Your task to perform on an android device: check google app version Image 0: 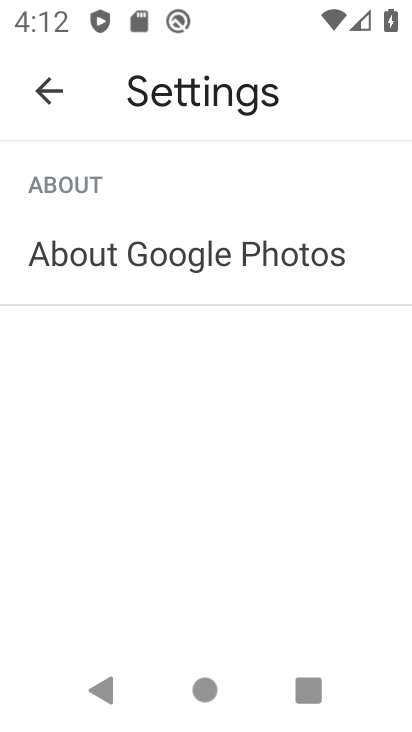
Step 0: press home button
Your task to perform on an android device: check google app version Image 1: 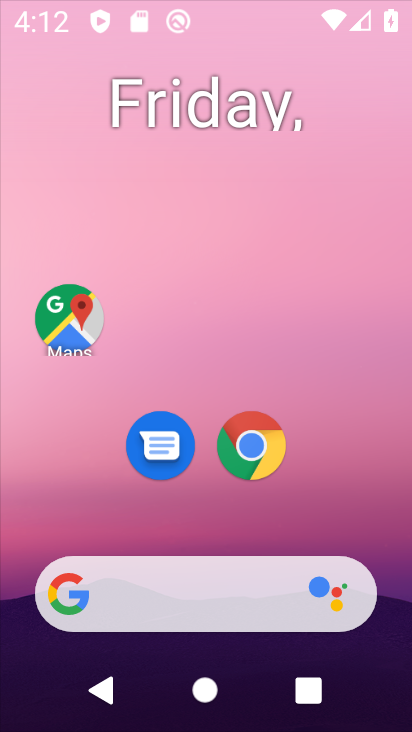
Step 1: drag from (244, 491) to (282, 127)
Your task to perform on an android device: check google app version Image 2: 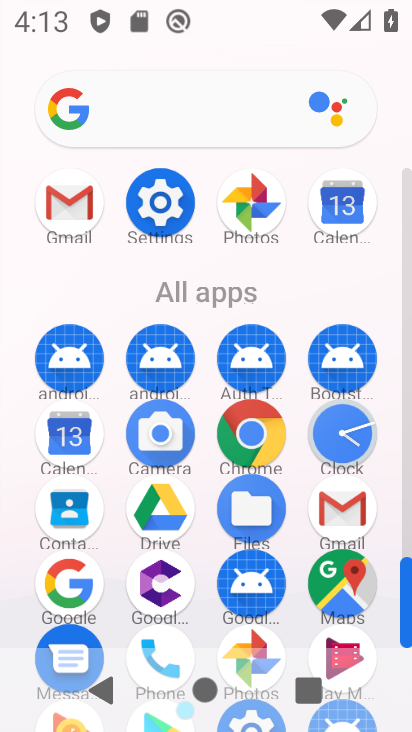
Step 2: click (66, 589)
Your task to perform on an android device: check google app version Image 3: 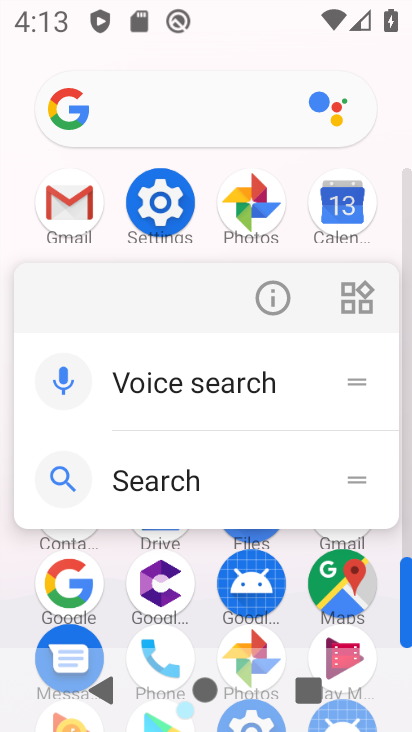
Step 3: click (279, 299)
Your task to perform on an android device: check google app version Image 4: 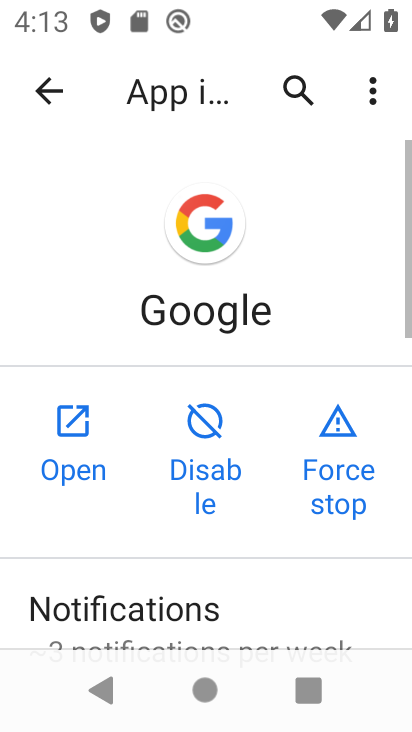
Step 4: drag from (287, 513) to (350, 84)
Your task to perform on an android device: check google app version Image 5: 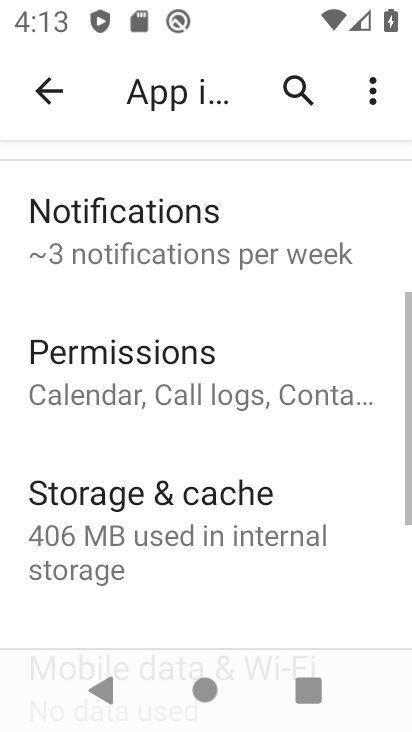
Step 5: drag from (221, 535) to (276, 68)
Your task to perform on an android device: check google app version Image 6: 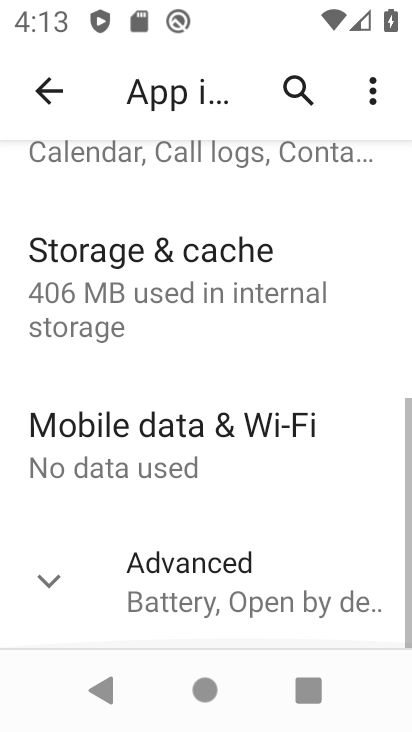
Step 6: drag from (201, 430) to (279, 82)
Your task to perform on an android device: check google app version Image 7: 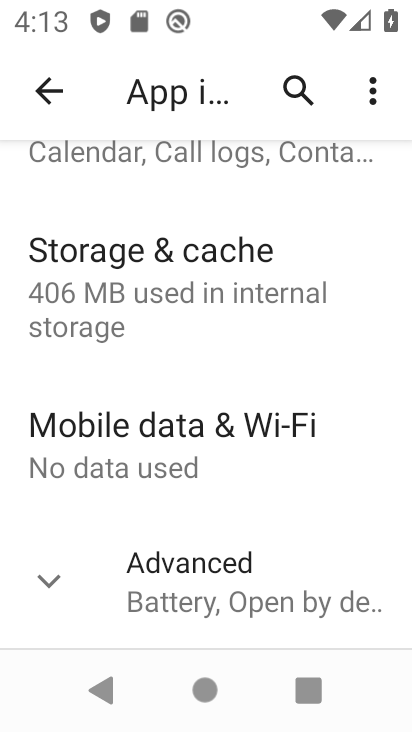
Step 7: drag from (282, 543) to (328, 46)
Your task to perform on an android device: check google app version Image 8: 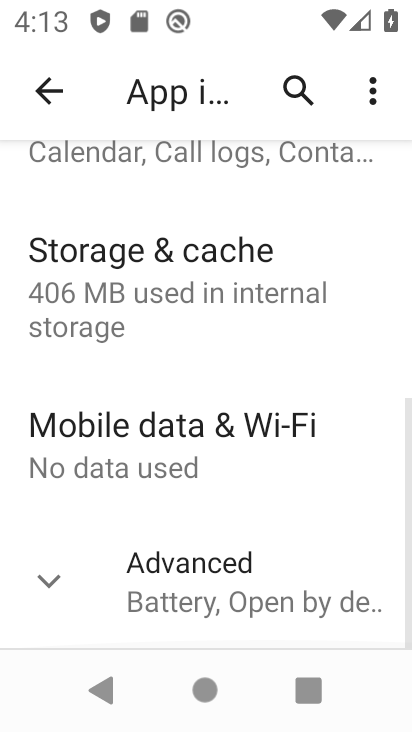
Step 8: drag from (232, 551) to (205, 187)
Your task to perform on an android device: check google app version Image 9: 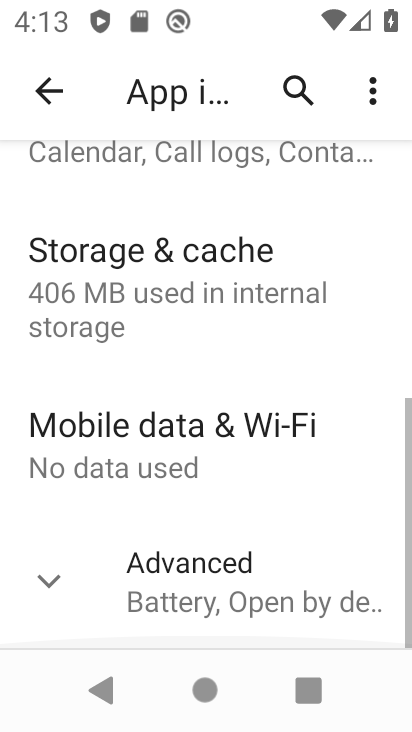
Step 9: click (183, 564)
Your task to perform on an android device: check google app version Image 10: 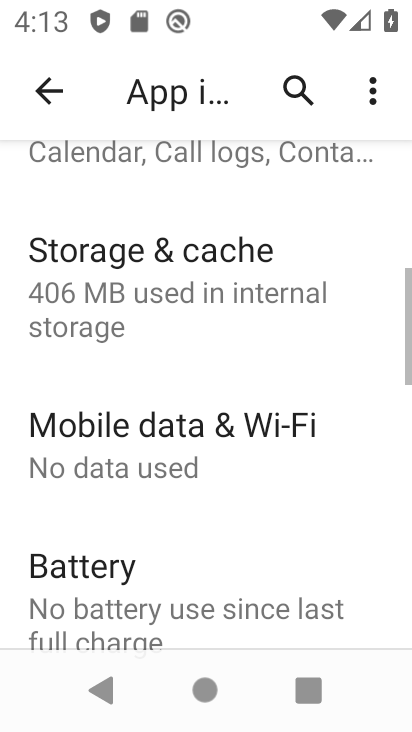
Step 10: task complete